Your task to perform on an android device: Search for Mexican restaurants on Maps Image 0: 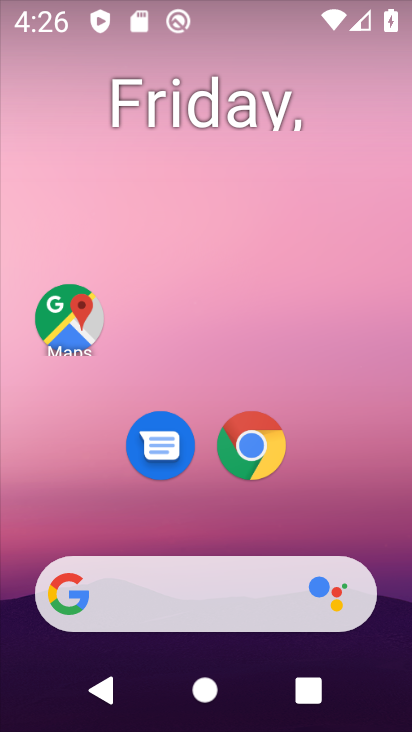
Step 0: click (77, 332)
Your task to perform on an android device: Search for Mexican restaurants on Maps Image 1: 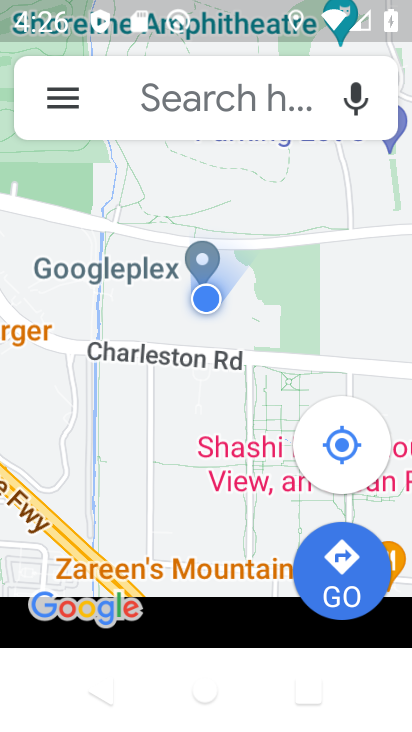
Step 1: click (199, 104)
Your task to perform on an android device: Search for Mexican restaurants on Maps Image 2: 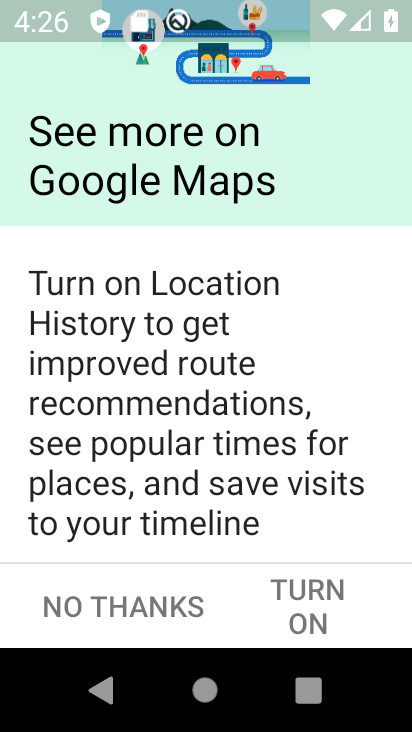
Step 2: click (321, 607)
Your task to perform on an android device: Search for Mexican restaurants on Maps Image 3: 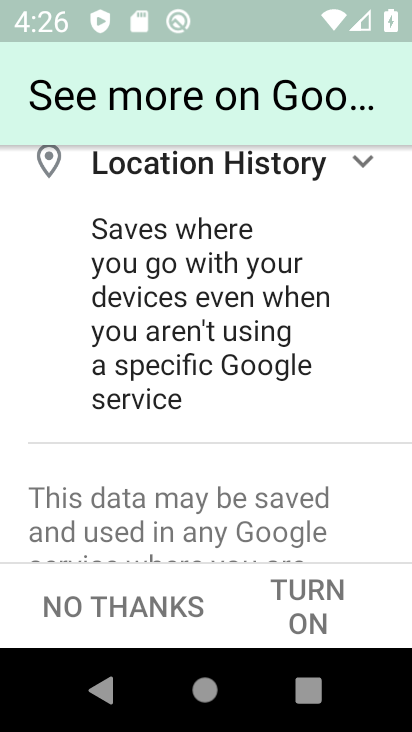
Step 3: click (306, 605)
Your task to perform on an android device: Search for Mexican restaurants on Maps Image 4: 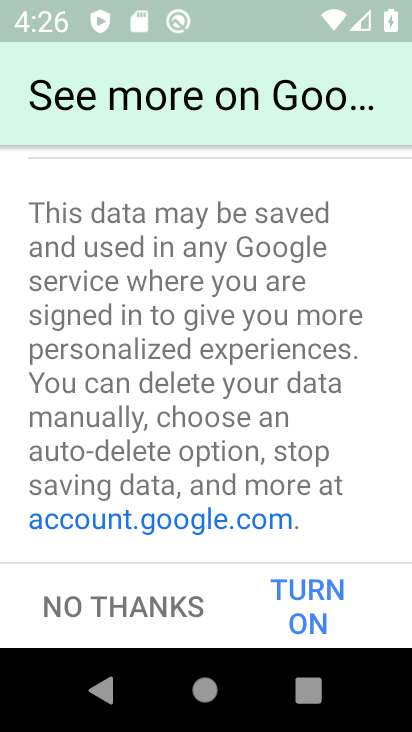
Step 4: click (175, 599)
Your task to perform on an android device: Search for Mexican restaurants on Maps Image 5: 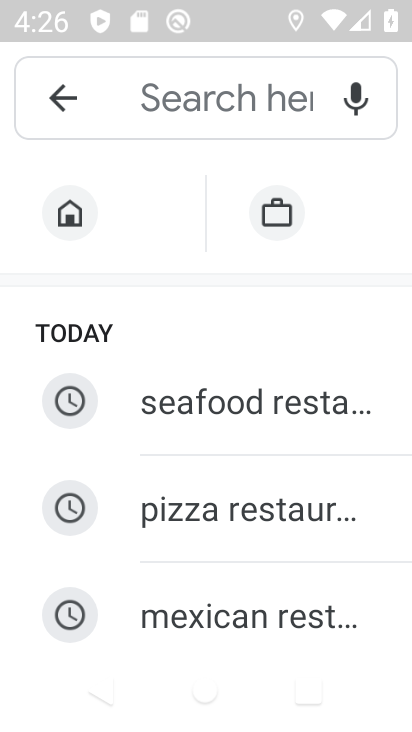
Step 5: click (247, 610)
Your task to perform on an android device: Search for Mexican restaurants on Maps Image 6: 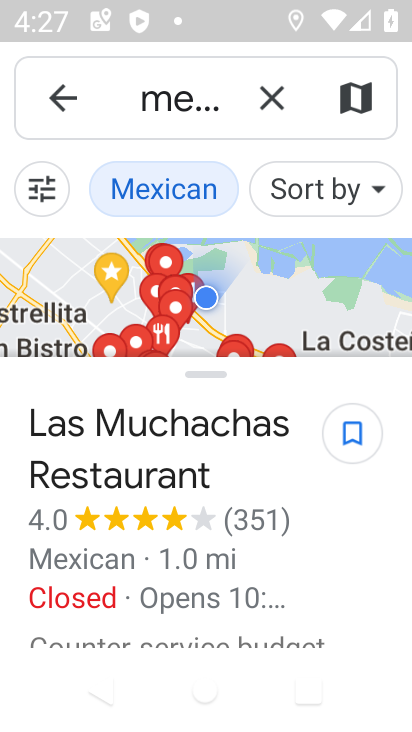
Step 6: task complete